Your task to perform on an android device: Open Yahoo.com Image 0: 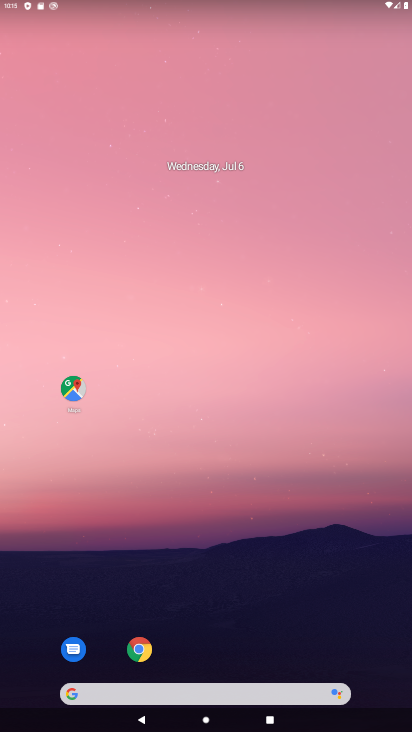
Step 0: drag from (158, 681) to (225, 243)
Your task to perform on an android device: Open Yahoo.com Image 1: 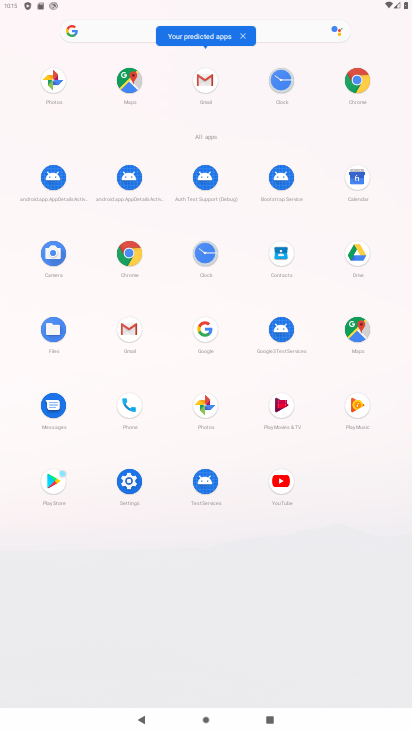
Step 1: click (209, 326)
Your task to perform on an android device: Open Yahoo.com Image 2: 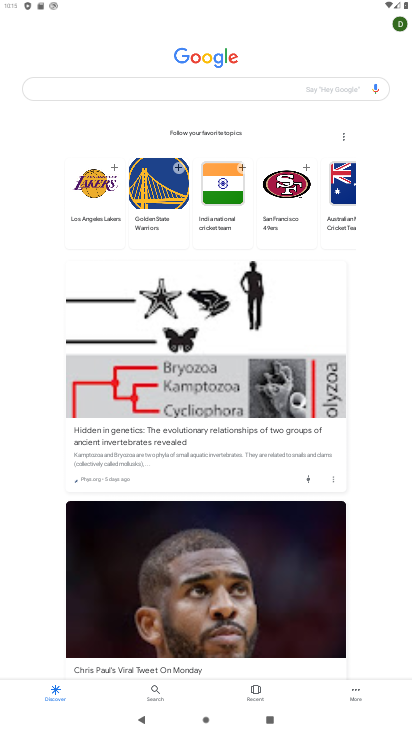
Step 2: click (144, 86)
Your task to perform on an android device: Open Yahoo.com Image 3: 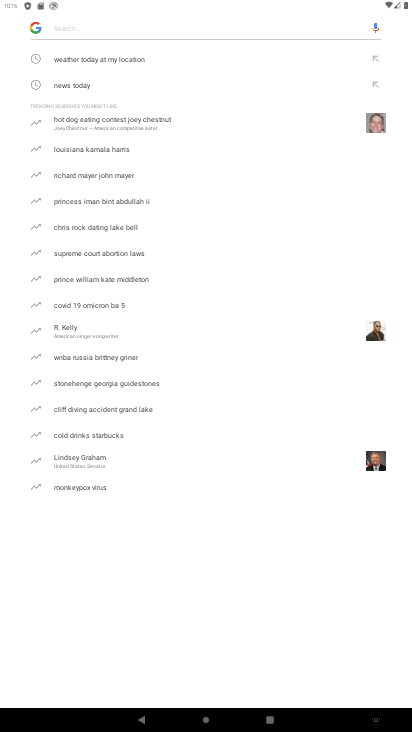
Step 3: type "yahoo.com"
Your task to perform on an android device: Open Yahoo.com Image 4: 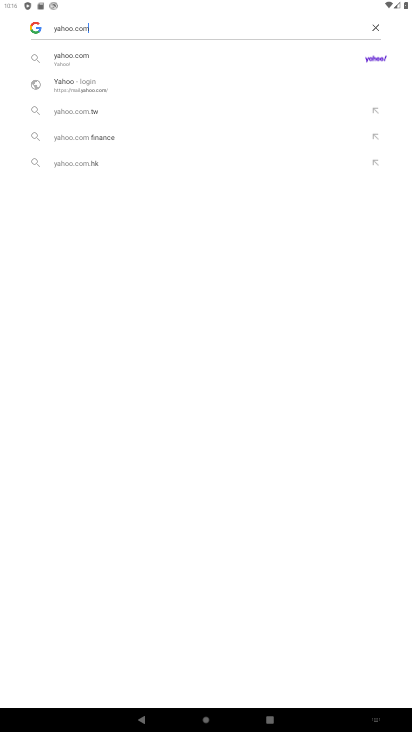
Step 4: click (70, 63)
Your task to perform on an android device: Open Yahoo.com Image 5: 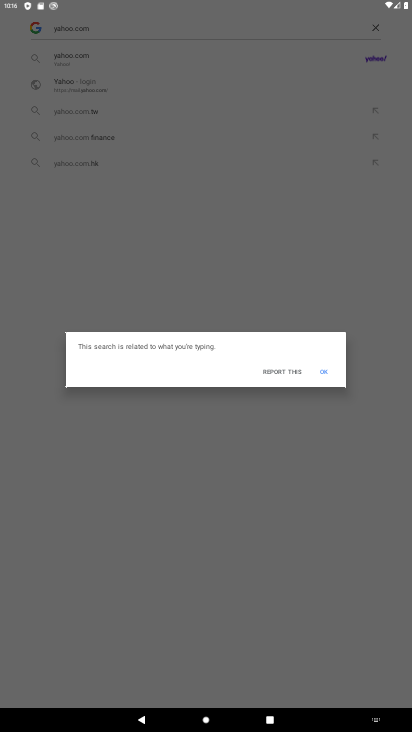
Step 5: click (328, 374)
Your task to perform on an android device: Open Yahoo.com Image 6: 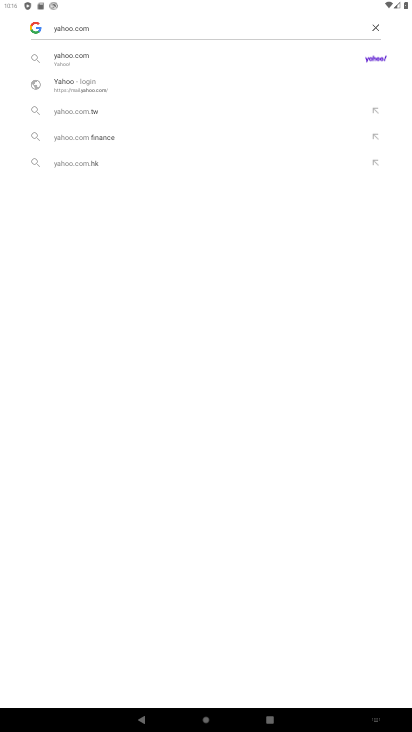
Step 6: click (65, 56)
Your task to perform on an android device: Open Yahoo.com Image 7: 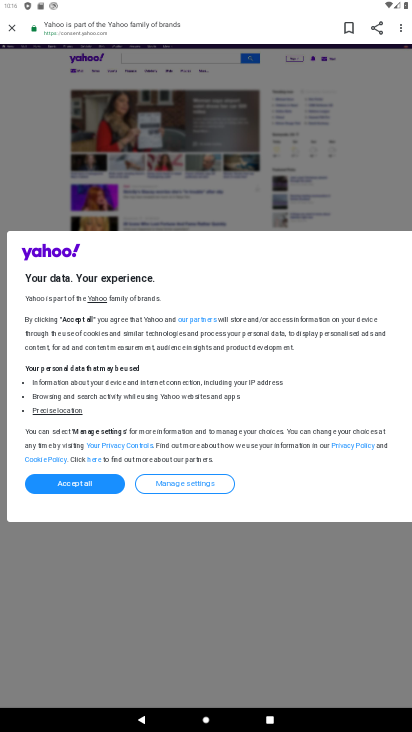
Step 7: task complete